Your task to perform on an android device: When is my next meeting? Image 0: 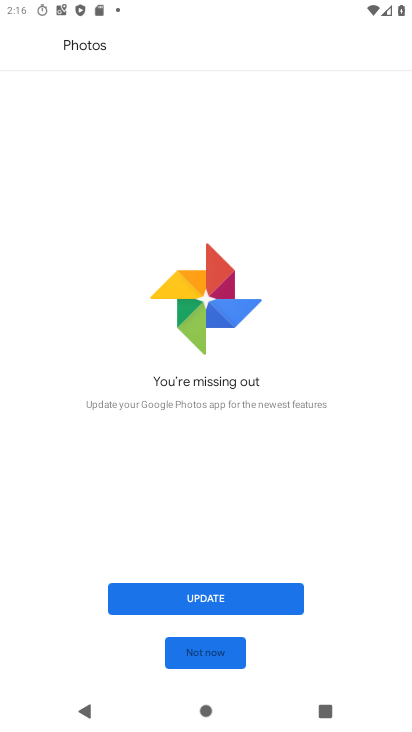
Step 0: press home button
Your task to perform on an android device: When is my next meeting? Image 1: 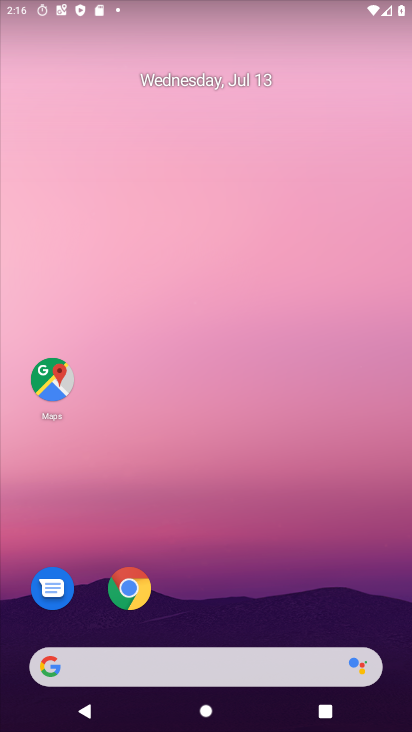
Step 1: drag from (220, 642) to (272, 247)
Your task to perform on an android device: When is my next meeting? Image 2: 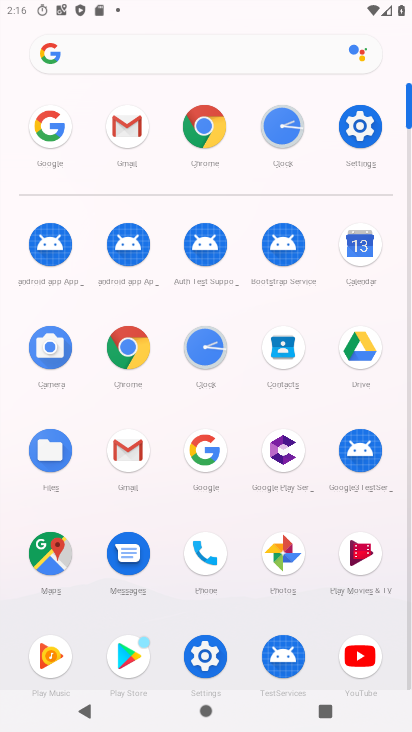
Step 2: click (360, 244)
Your task to perform on an android device: When is my next meeting? Image 3: 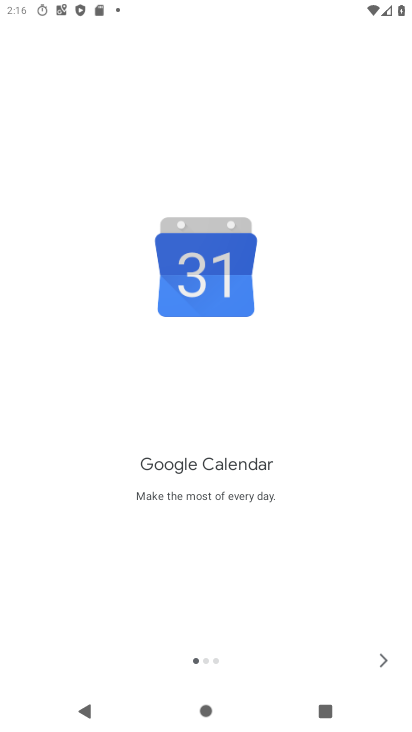
Step 3: click (383, 661)
Your task to perform on an android device: When is my next meeting? Image 4: 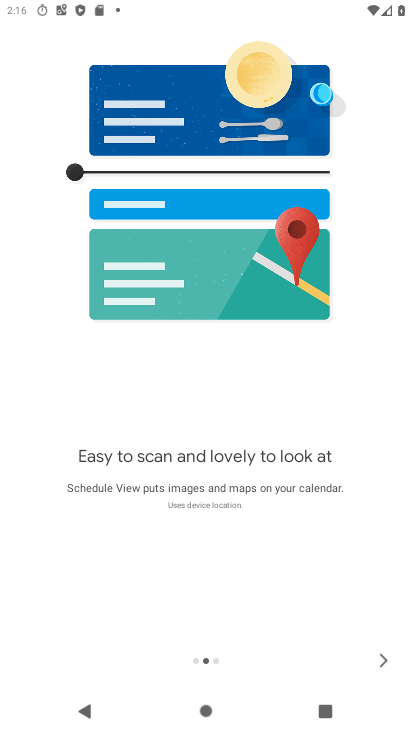
Step 4: click (383, 661)
Your task to perform on an android device: When is my next meeting? Image 5: 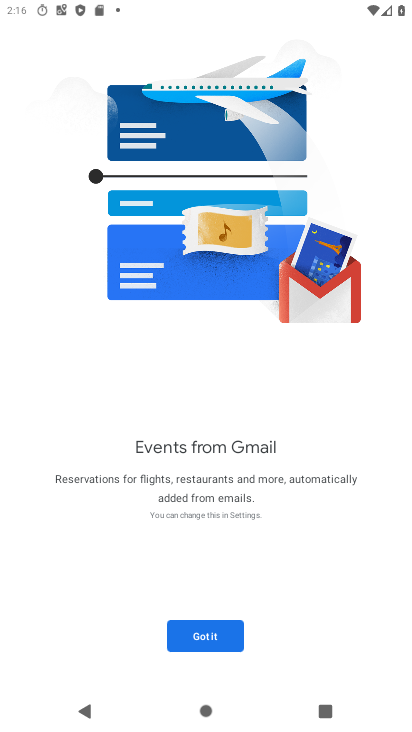
Step 5: click (184, 637)
Your task to perform on an android device: When is my next meeting? Image 6: 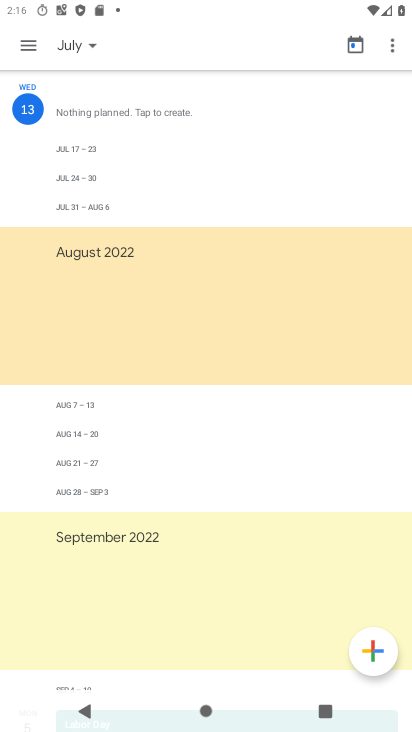
Step 6: click (83, 46)
Your task to perform on an android device: When is my next meeting? Image 7: 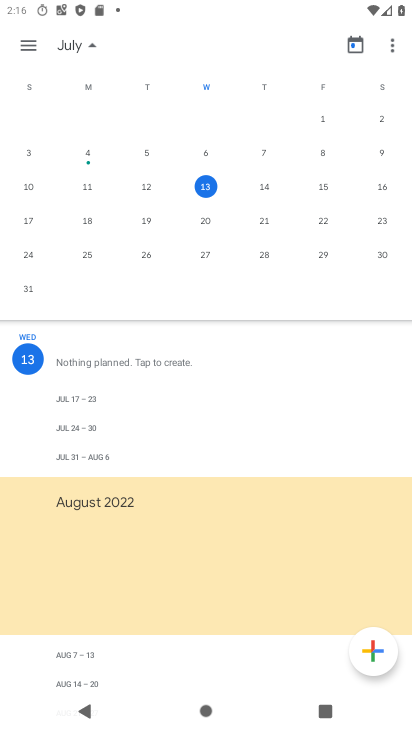
Step 7: task complete